Your task to perform on an android device: Show me recent news Image 0: 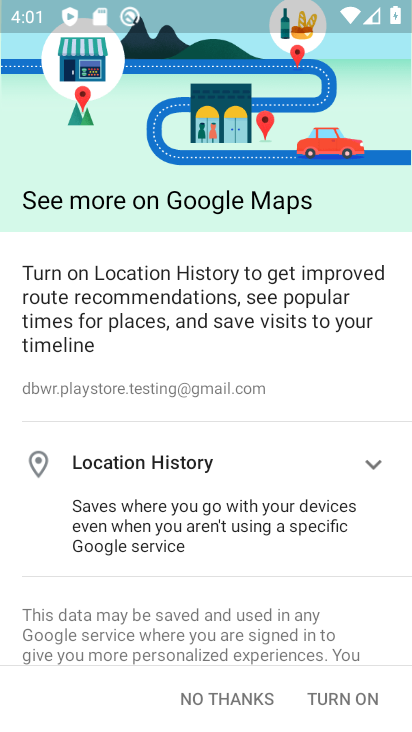
Step 0: press home button
Your task to perform on an android device: Show me recent news Image 1: 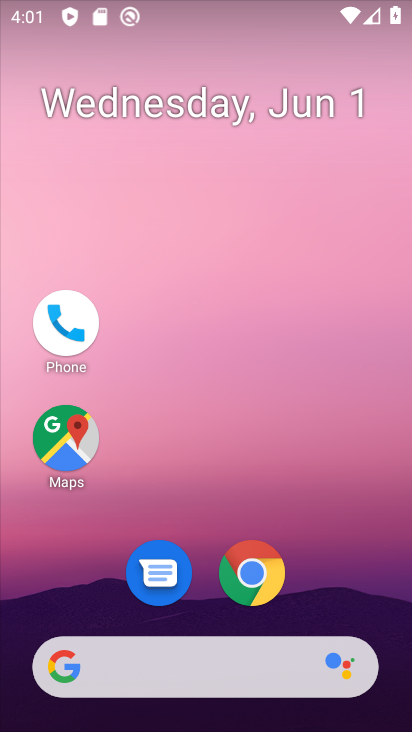
Step 1: click (156, 671)
Your task to perform on an android device: Show me recent news Image 2: 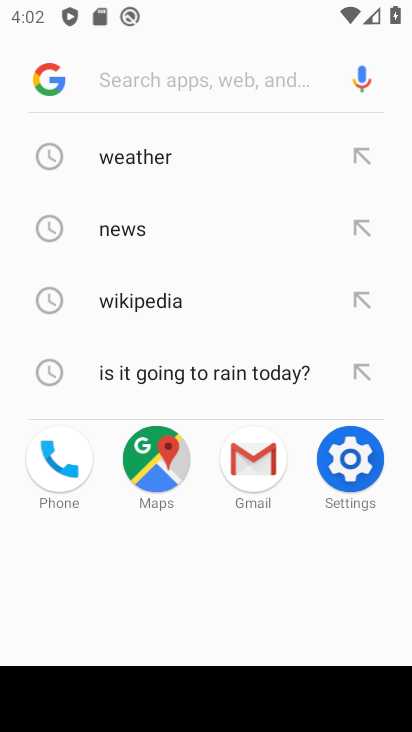
Step 2: click (129, 233)
Your task to perform on an android device: Show me recent news Image 3: 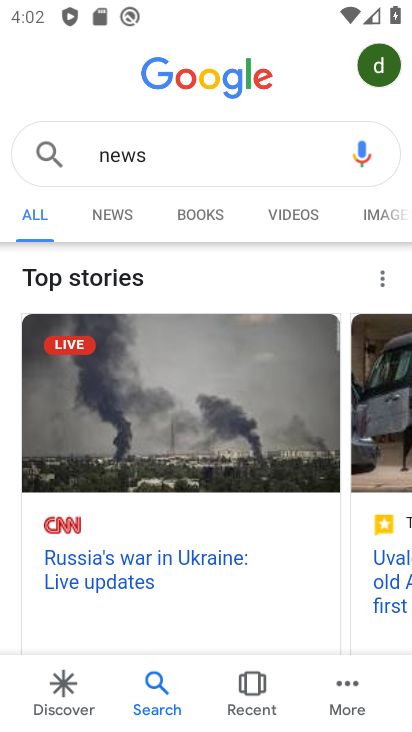
Step 3: task complete